Your task to perform on an android device: check data usage Image 0: 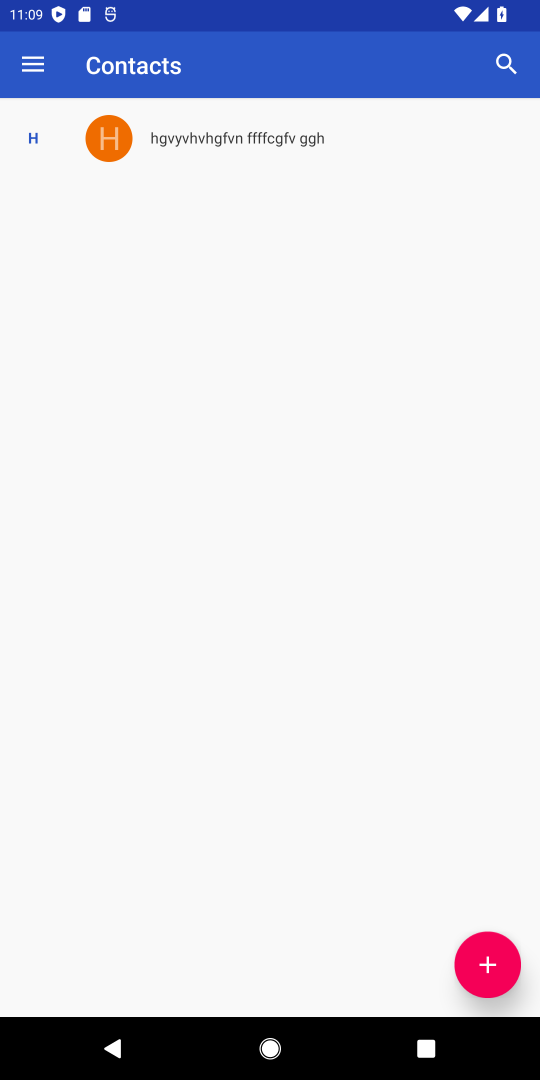
Step 0: press home button
Your task to perform on an android device: check data usage Image 1: 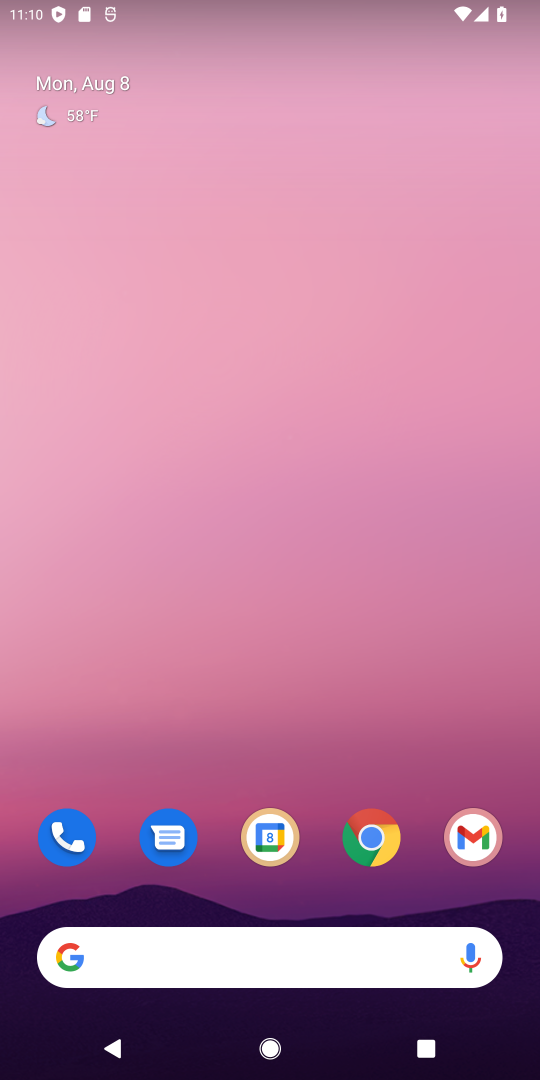
Step 1: drag from (520, 1031) to (467, 150)
Your task to perform on an android device: check data usage Image 2: 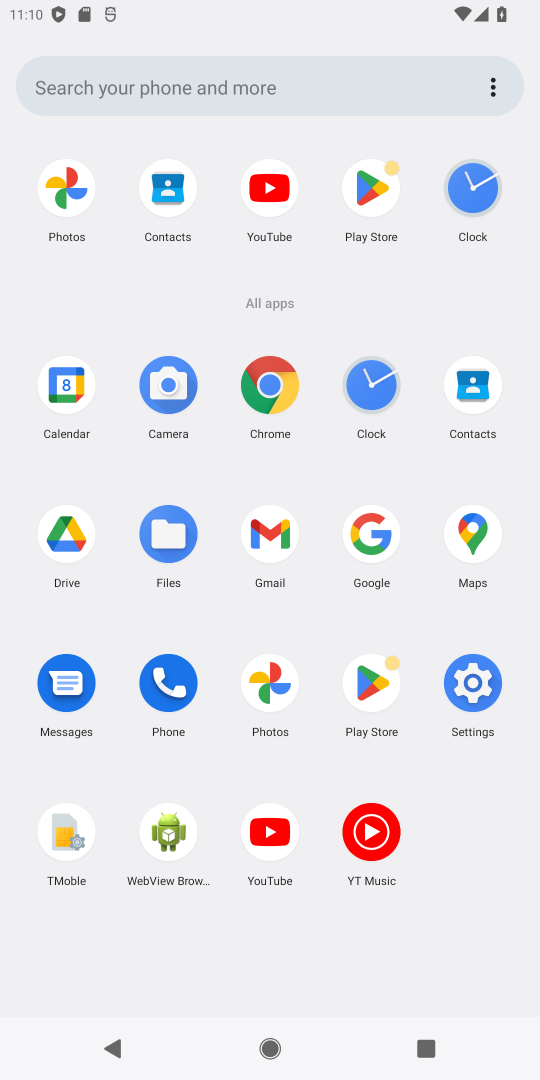
Step 2: click (475, 676)
Your task to perform on an android device: check data usage Image 3: 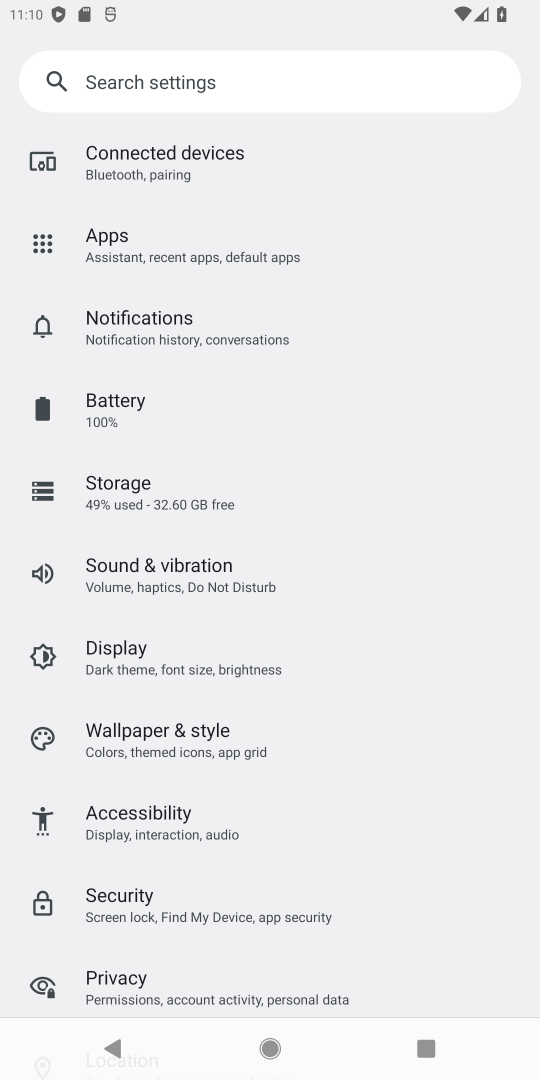
Step 3: drag from (382, 186) to (373, 639)
Your task to perform on an android device: check data usage Image 4: 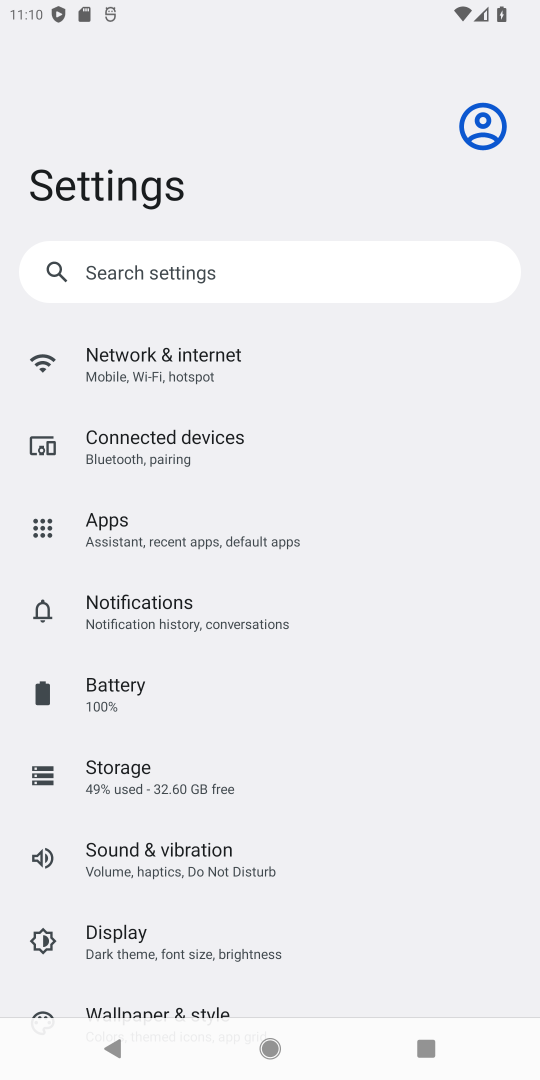
Step 4: click (168, 377)
Your task to perform on an android device: check data usage Image 5: 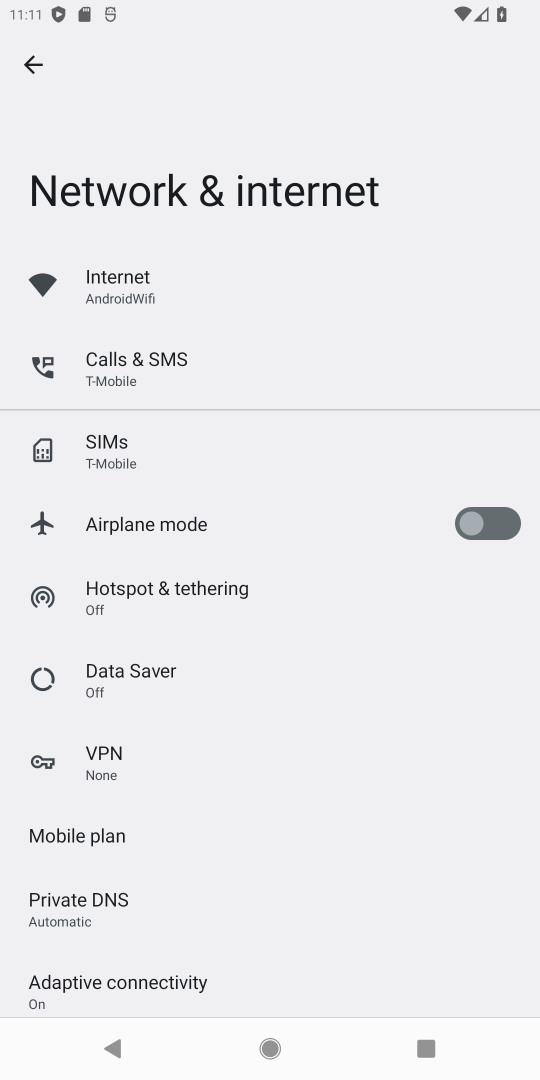
Step 5: click (112, 280)
Your task to perform on an android device: check data usage Image 6: 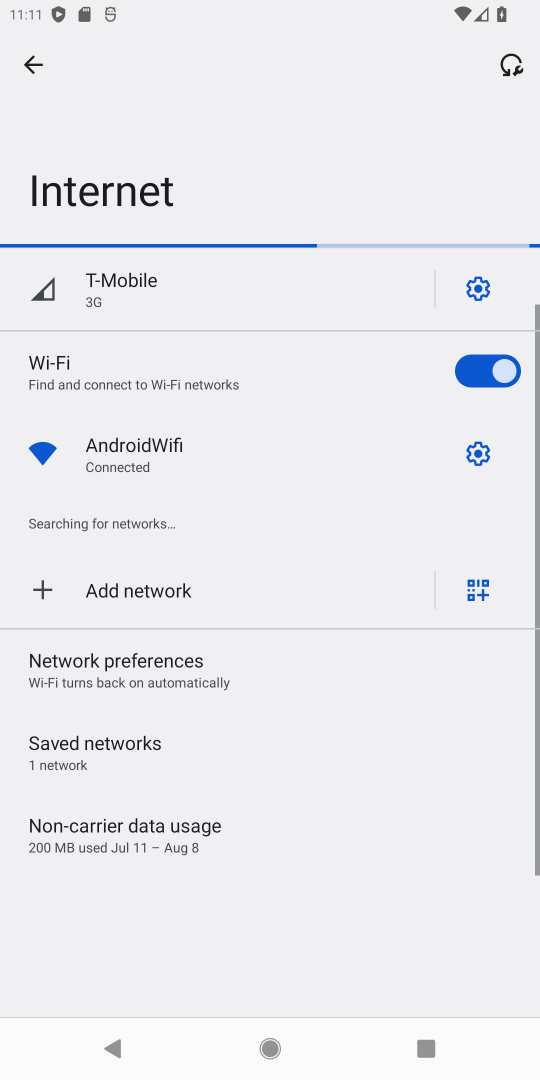
Step 6: click (134, 277)
Your task to perform on an android device: check data usage Image 7: 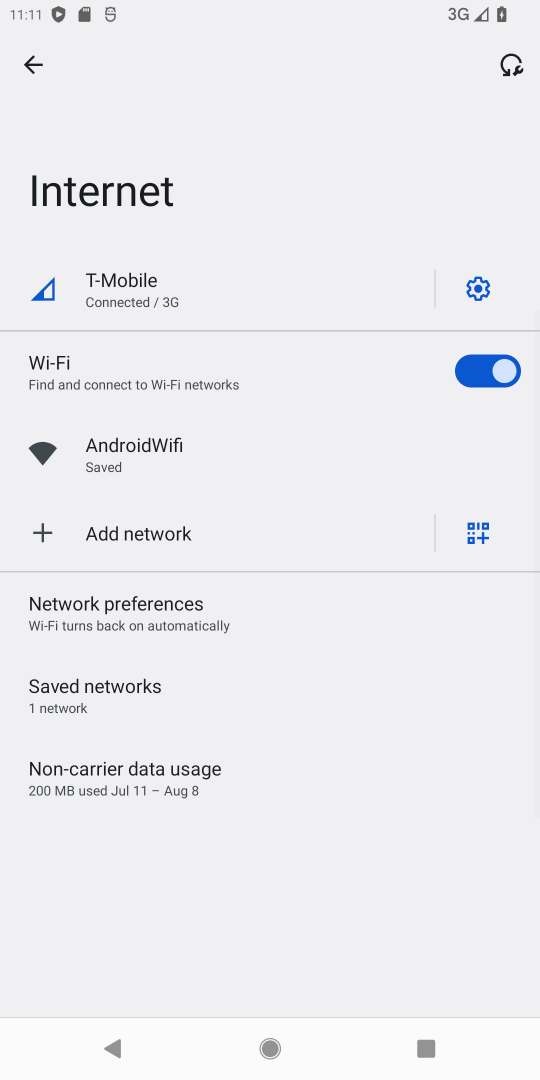
Step 7: click (133, 277)
Your task to perform on an android device: check data usage Image 8: 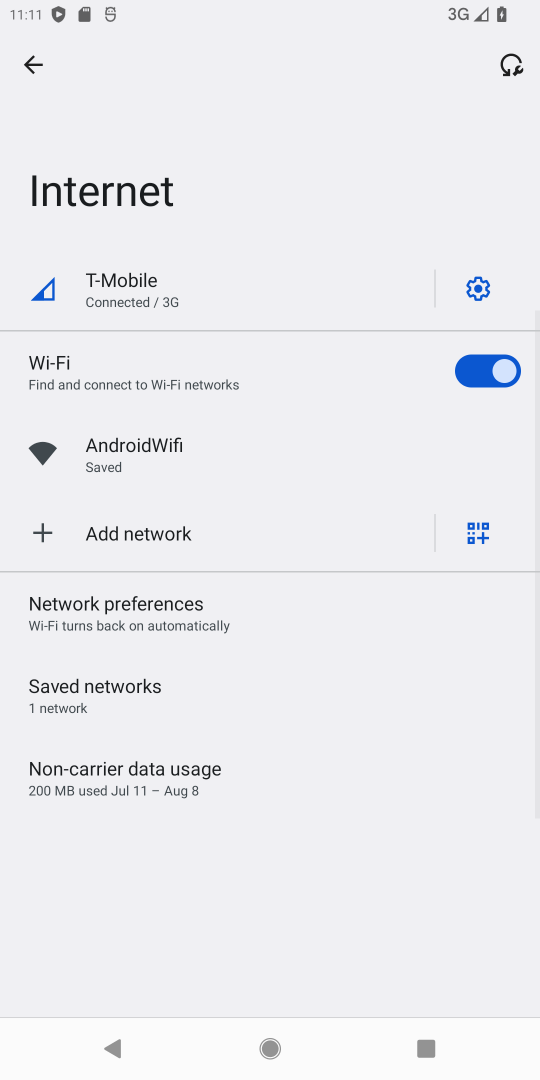
Step 8: click (138, 775)
Your task to perform on an android device: check data usage Image 9: 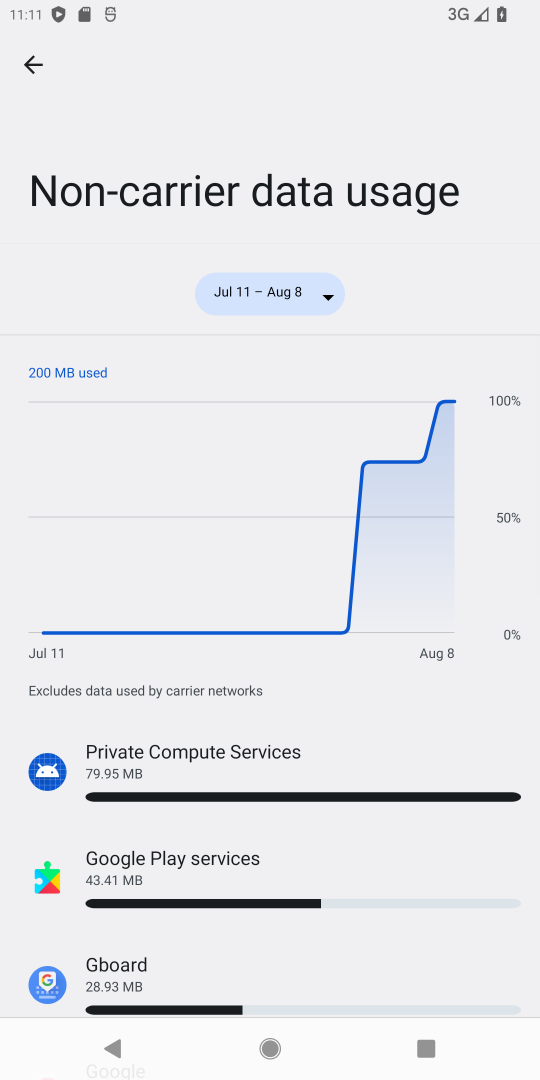
Step 9: task complete